Your task to perform on an android device: add a contact in the contacts app Image 0: 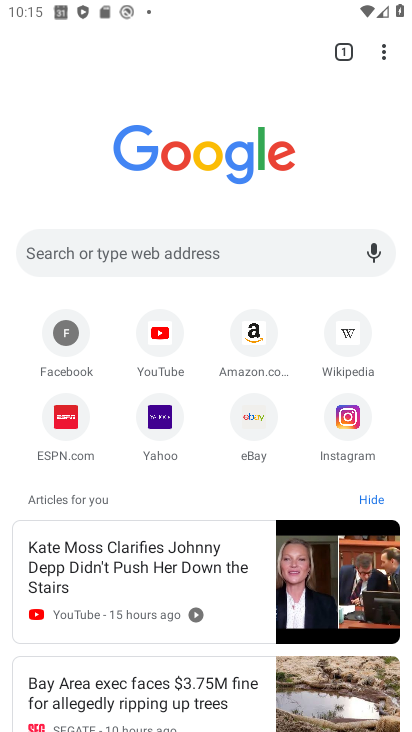
Step 0: press back button
Your task to perform on an android device: add a contact in the contacts app Image 1: 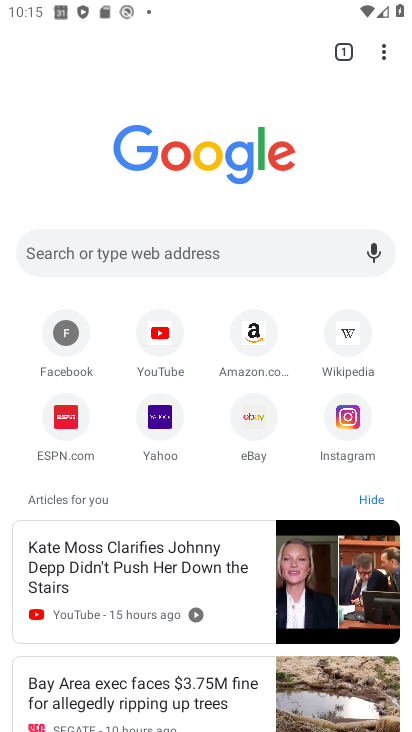
Step 1: press home button
Your task to perform on an android device: add a contact in the contacts app Image 2: 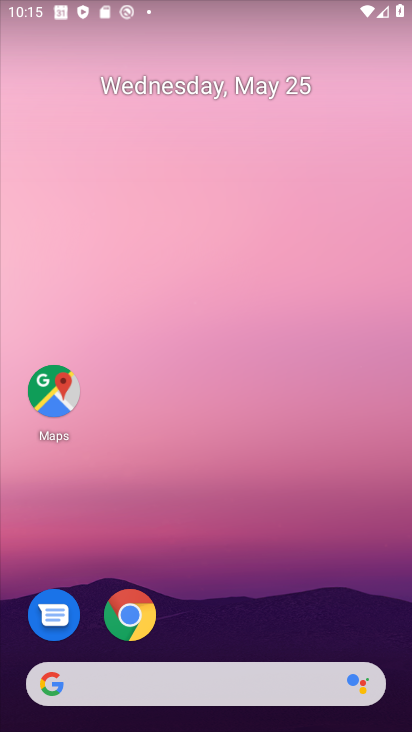
Step 2: drag from (201, 655) to (246, 87)
Your task to perform on an android device: add a contact in the contacts app Image 3: 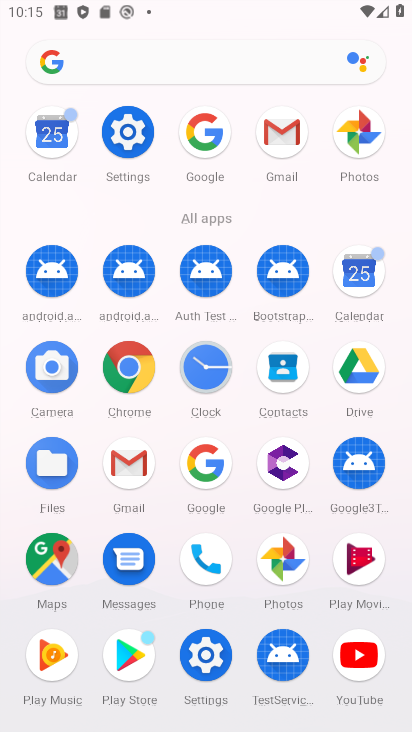
Step 3: click (211, 557)
Your task to perform on an android device: add a contact in the contacts app Image 4: 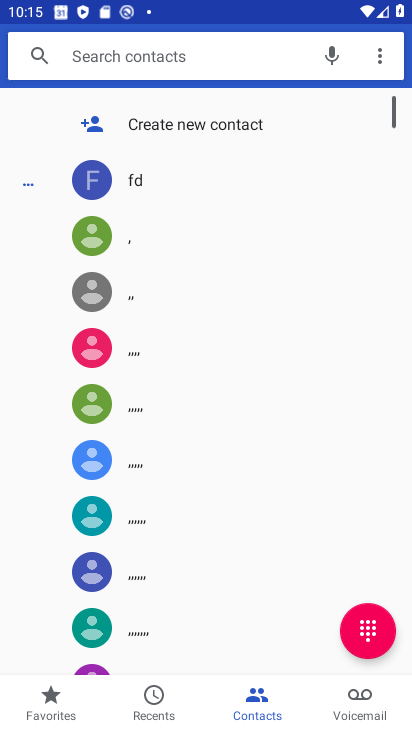
Step 4: click (190, 139)
Your task to perform on an android device: add a contact in the contacts app Image 5: 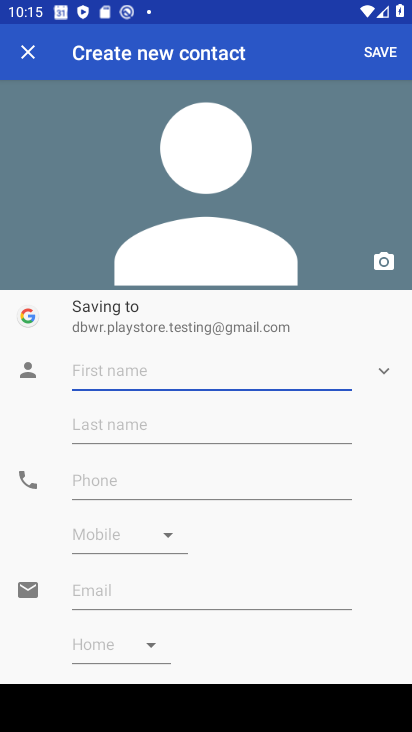
Step 5: type "ml"
Your task to perform on an android device: add a contact in the contacts app Image 6: 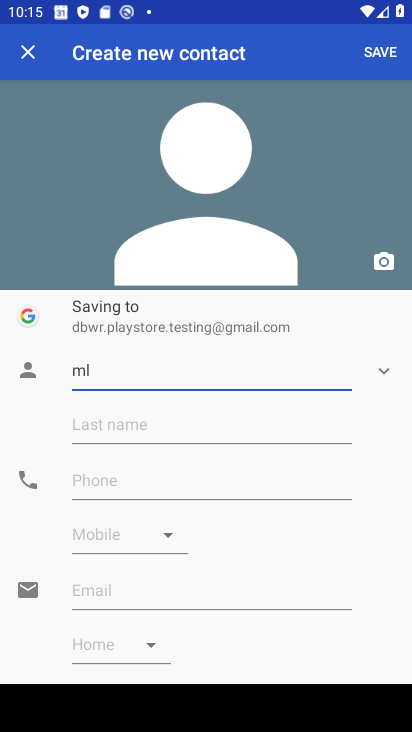
Step 6: click (214, 458)
Your task to perform on an android device: add a contact in the contacts app Image 7: 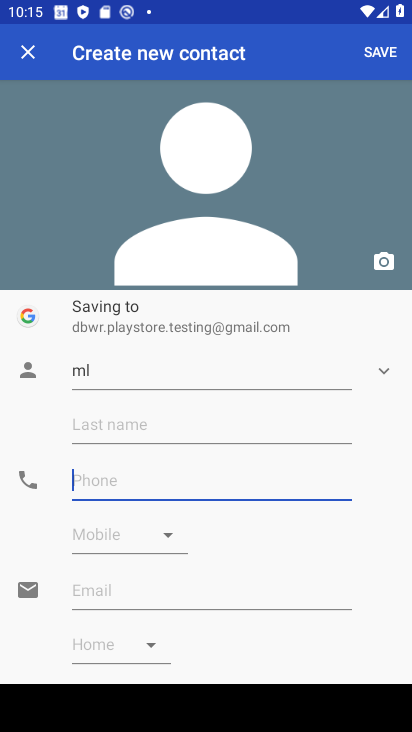
Step 7: type "090"
Your task to perform on an android device: add a contact in the contacts app Image 8: 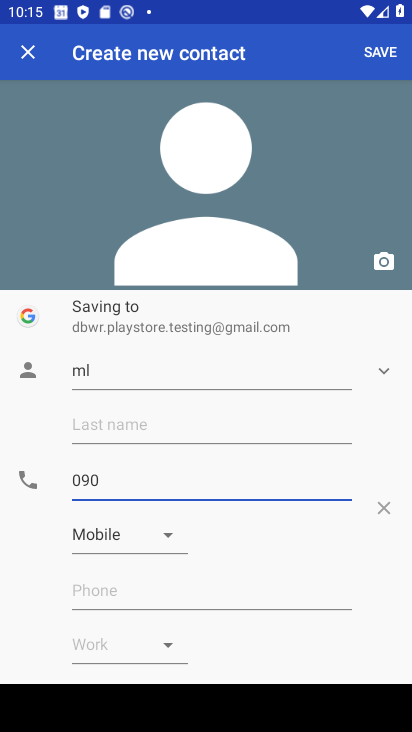
Step 8: click (371, 46)
Your task to perform on an android device: add a contact in the contacts app Image 9: 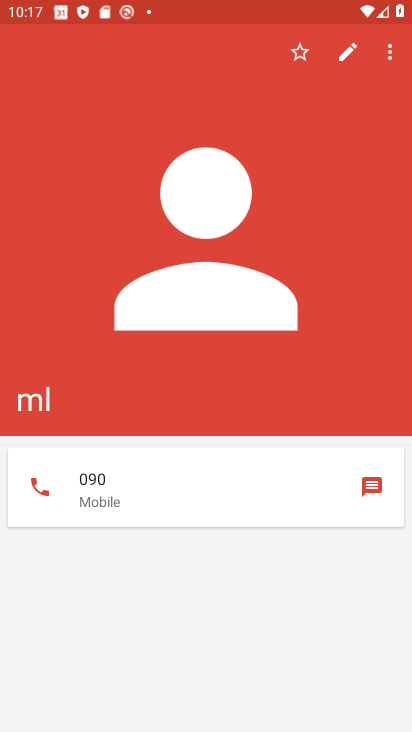
Step 9: task complete